Your task to perform on an android device: turn off notifications settings in the gmail app Image 0: 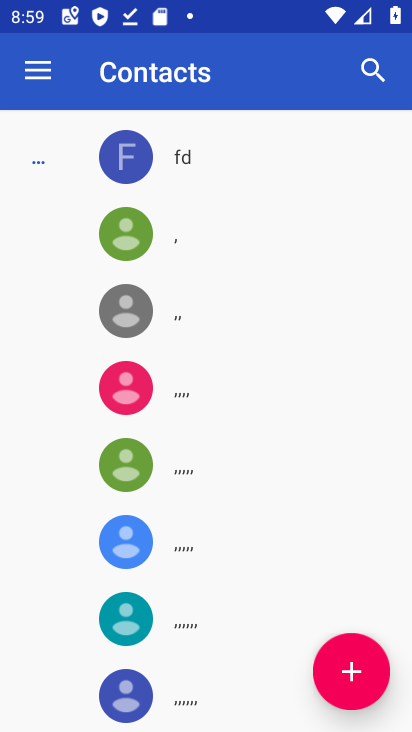
Step 0: drag from (303, 712) to (199, 145)
Your task to perform on an android device: turn off notifications settings in the gmail app Image 1: 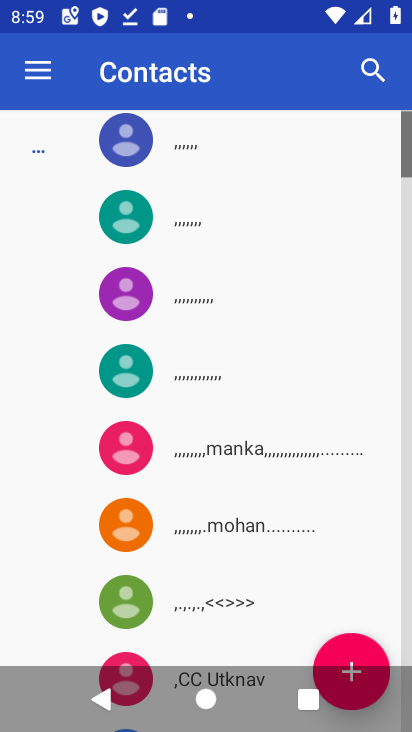
Step 1: press back button
Your task to perform on an android device: turn off notifications settings in the gmail app Image 2: 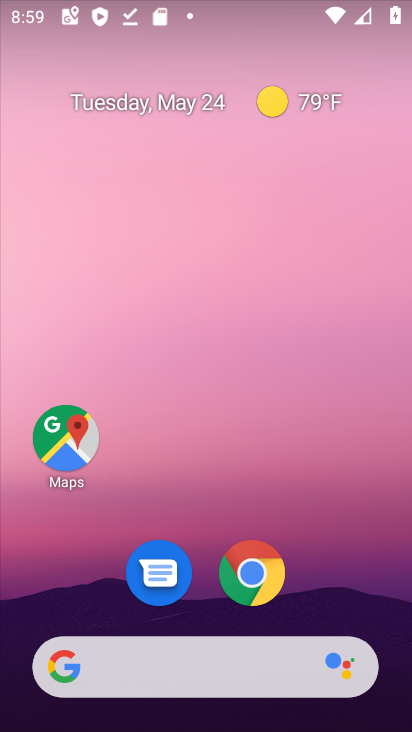
Step 2: drag from (282, 667) to (134, 86)
Your task to perform on an android device: turn off notifications settings in the gmail app Image 3: 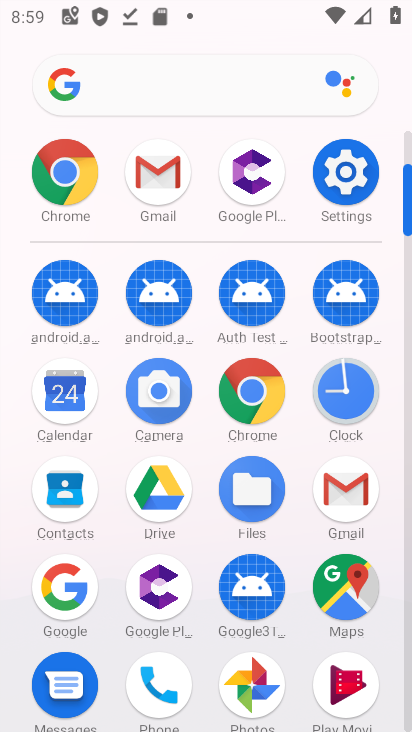
Step 3: click (340, 499)
Your task to perform on an android device: turn off notifications settings in the gmail app Image 4: 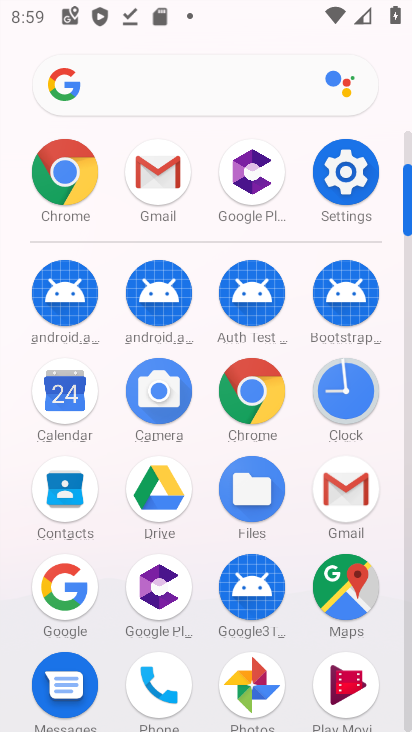
Step 4: click (343, 498)
Your task to perform on an android device: turn off notifications settings in the gmail app Image 5: 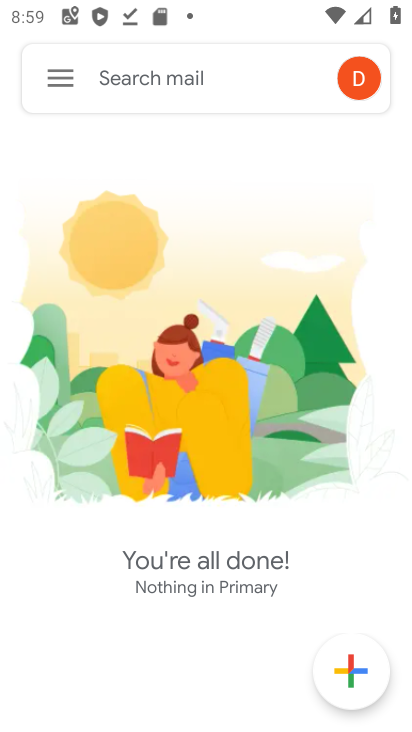
Step 5: drag from (65, 75) to (66, 288)
Your task to perform on an android device: turn off notifications settings in the gmail app Image 6: 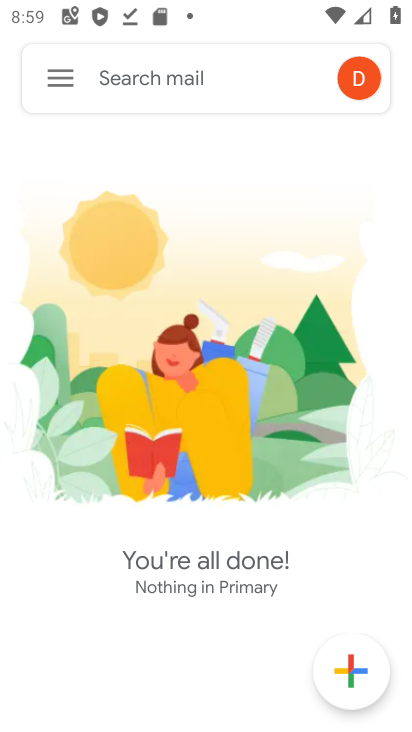
Step 6: click (45, 76)
Your task to perform on an android device: turn off notifications settings in the gmail app Image 7: 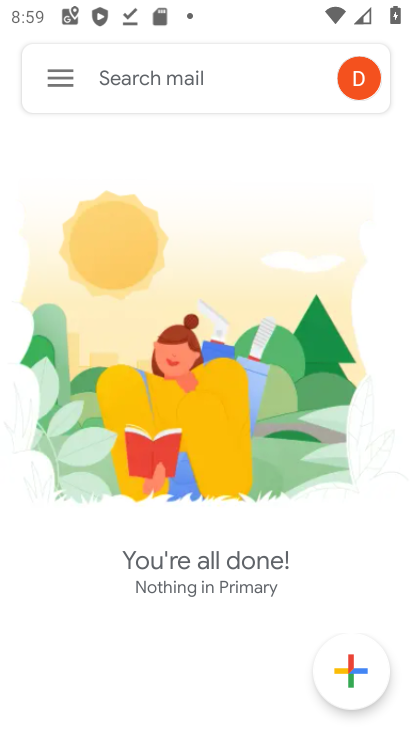
Step 7: click (51, 74)
Your task to perform on an android device: turn off notifications settings in the gmail app Image 8: 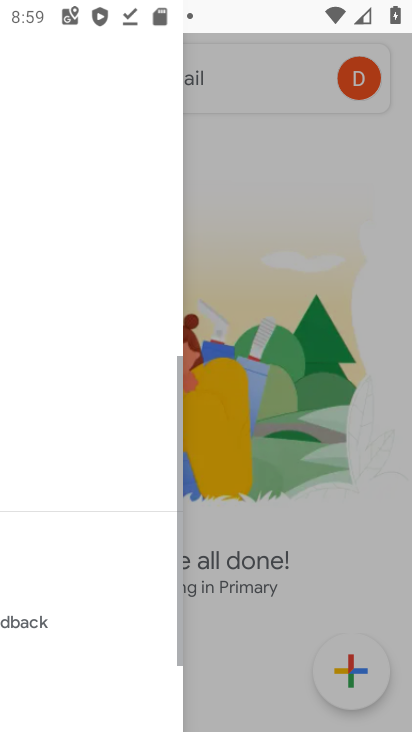
Step 8: click (52, 74)
Your task to perform on an android device: turn off notifications settings in the gmail app Image 9: 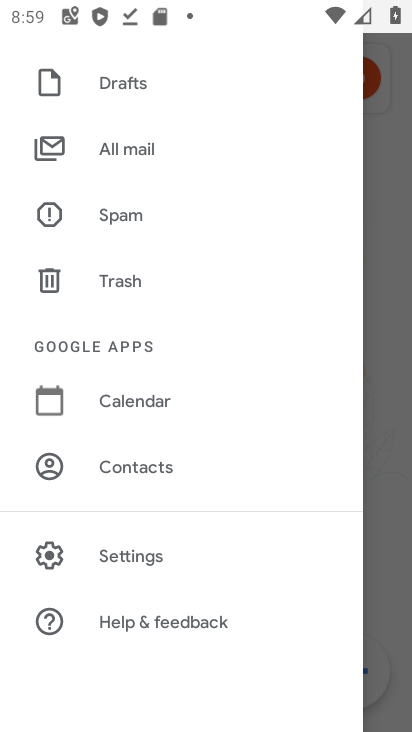
Step 9: click (146, 561)
Your task to perform on an android device: turn off notifications settings in the gmail app Image 10: 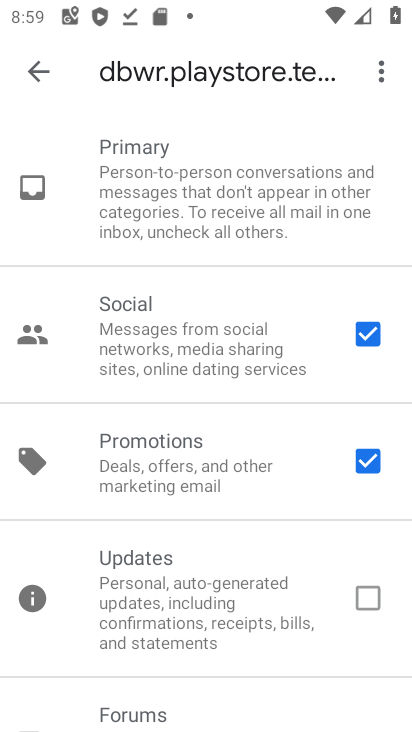
Step 10: click (27, 69)
Your task to perform on an android device: turn off notifications settings in the gmail app Image 11: 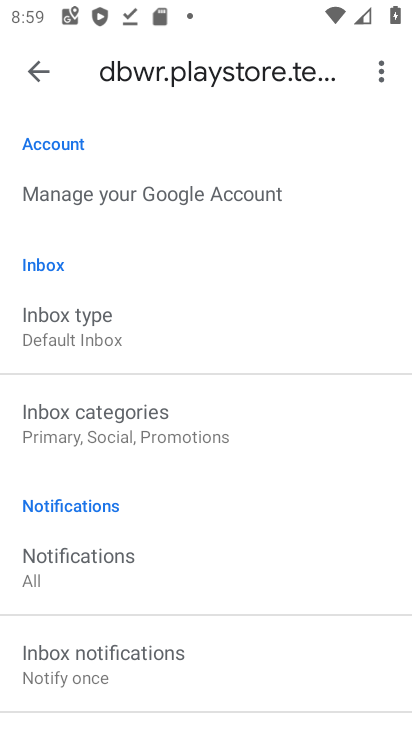
Step 11: click (74, 554)
Your task to perform on an android device: turn off notifications settings in the gmail app Image 12: 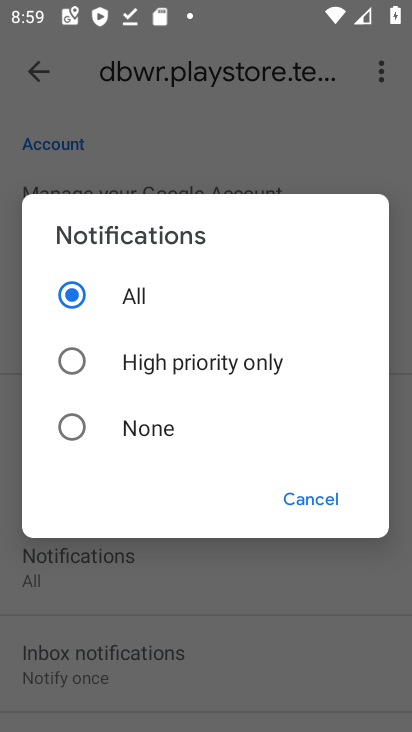
Step 12: click (64, 427)
Your task to perform on an android device: turn off notifications settings in the gmail app Image 13: 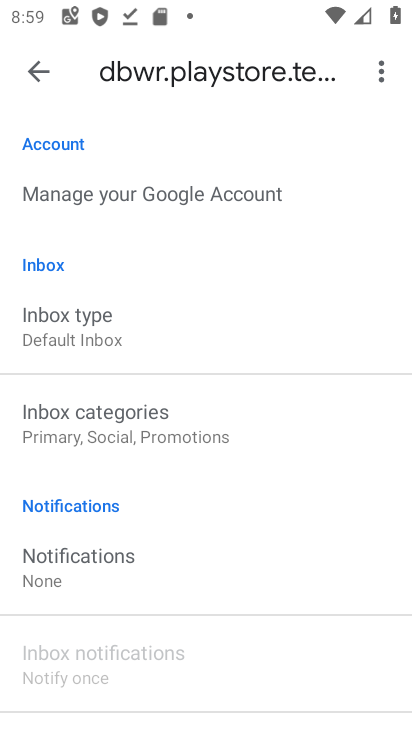
Step 13: task complete